Your task to perform on an android device: delete a single message in the gmail app Image 0: 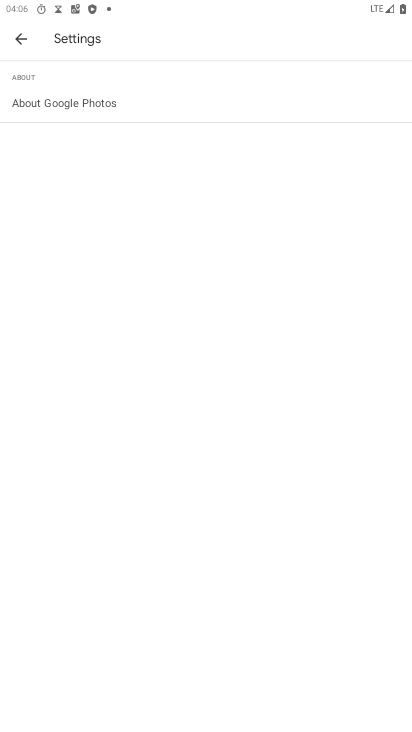
Step 0: press home button
Your task to perform on an android device: delete a single message in the gmail app Image 1: 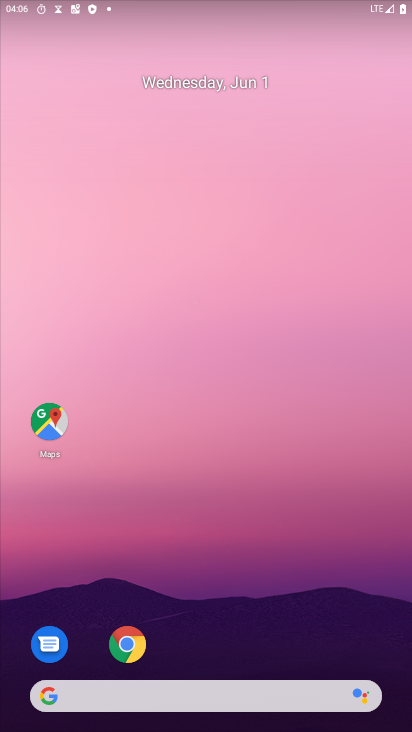
Step 1: drag from (233, 571) to (257, 109)
Your task to perform on an android device: delete a single message in the gmail app Image 2: 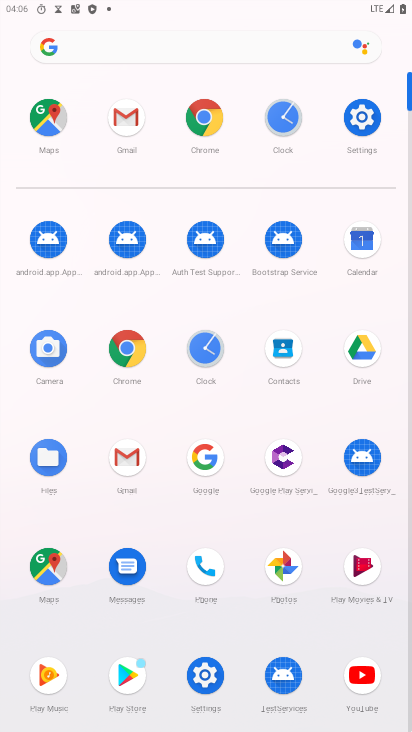
Step 2: click (113, 112)
Your task to perform on an android device: delete a single message in the gmail app Image 3: 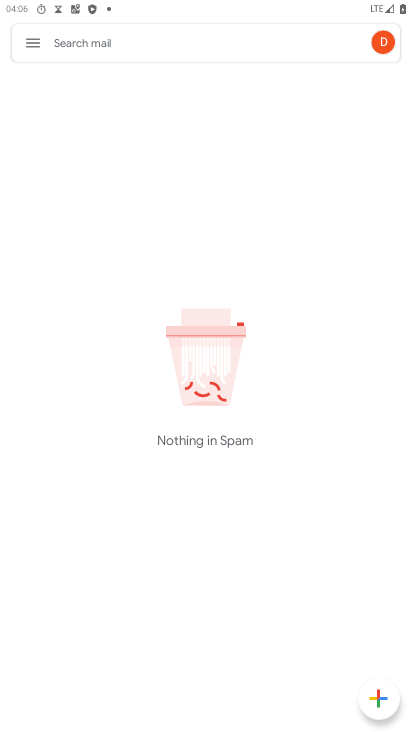
Step 3: click (29, 44)
Your task to perform on an android device: delete a single message in the gmail app Image 4: 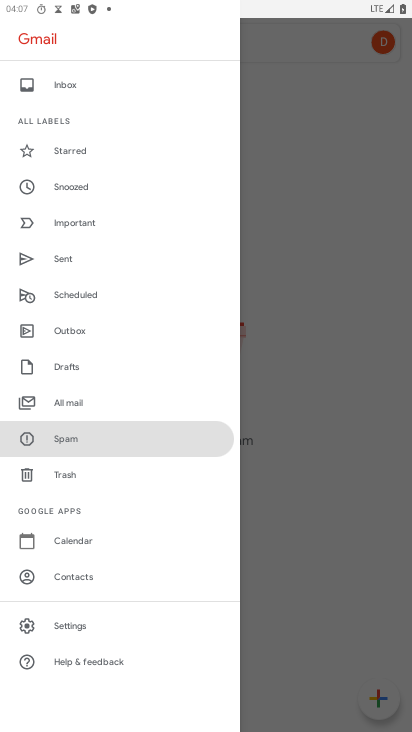
Step 4: click (73, 396)
Your task to perform on an android device: delete a single message in the gmail app Image 5: 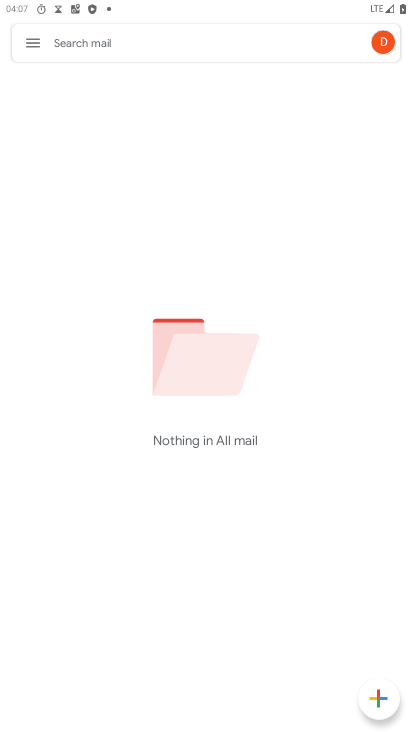
Step 5: task complete